Your task to perform on an android device: Open Maps and search for coffee Image 0: 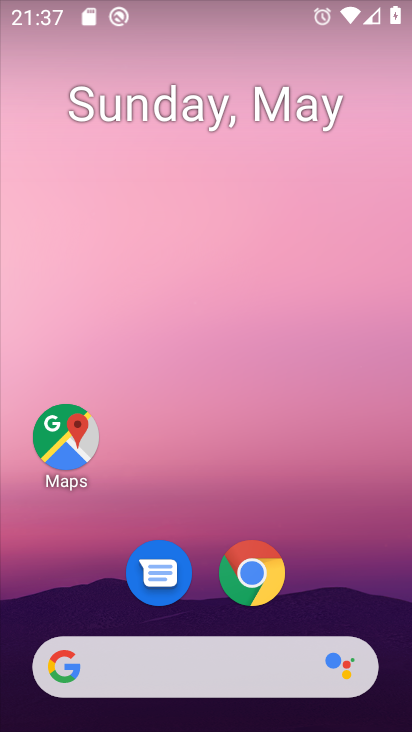
Step 0: click (53, 430)
Your task to perform on an android device: Open Maps and search for coffee Image 1: 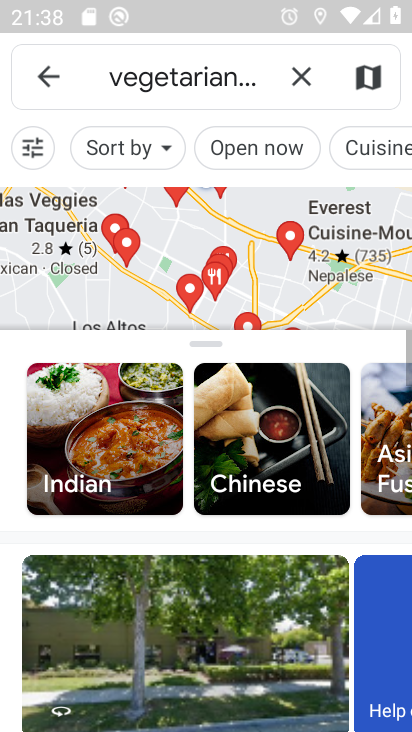
Step 1: click (302, 70)
Your task to perform on an android device: Open Maps and search for coffee Image 2: 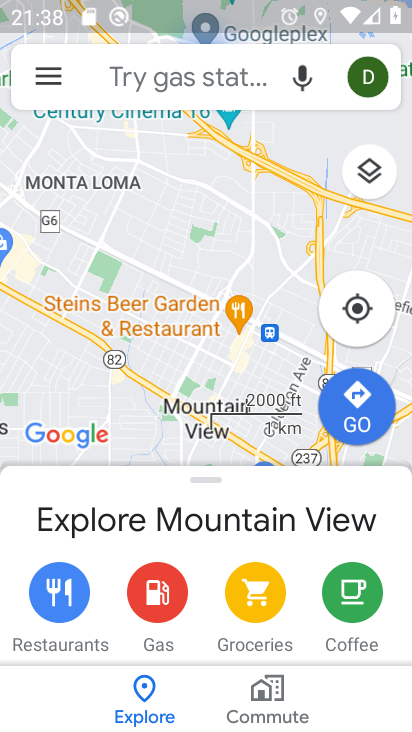
Step 2: click (201, 75)
Your task to perform on an android device: Open Maps and search for coffee Image 3: 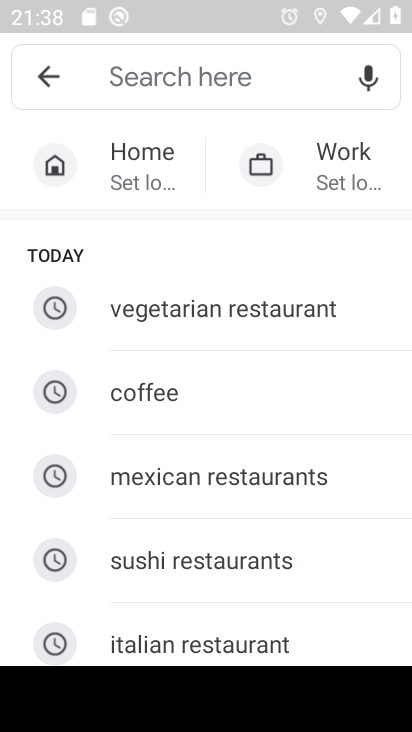
Step 3: click (136, 385)
Your task to perform on an android device: Open Maps and search for coffee Image 4: 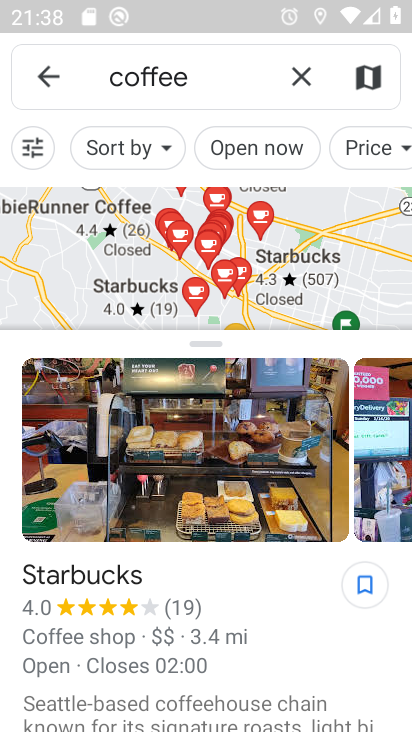
Step 4: task complete